Your task to perform on an android device: check storage Image 0: 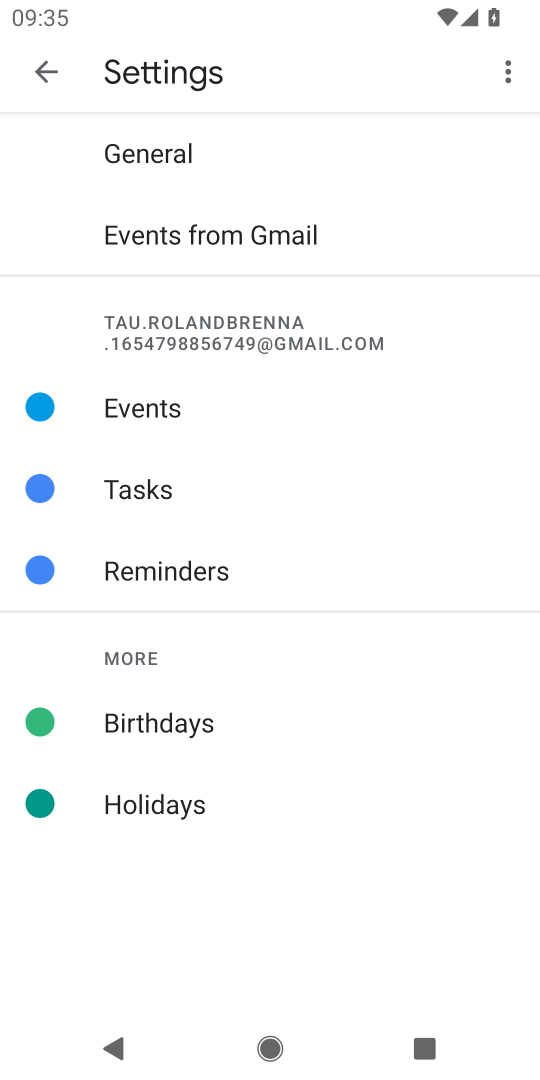
Step 0: press home button
Your task to perform on an android device: check storage Image 1: 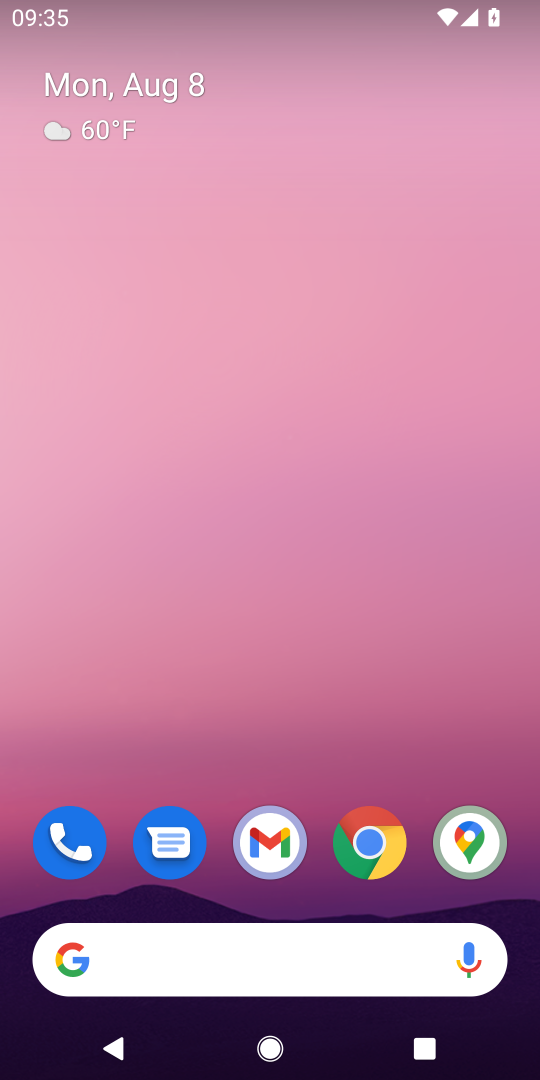
Step 1: drag from (220, 732) to (275, 7)
Your task to perform on an android device: check storage Image 2: 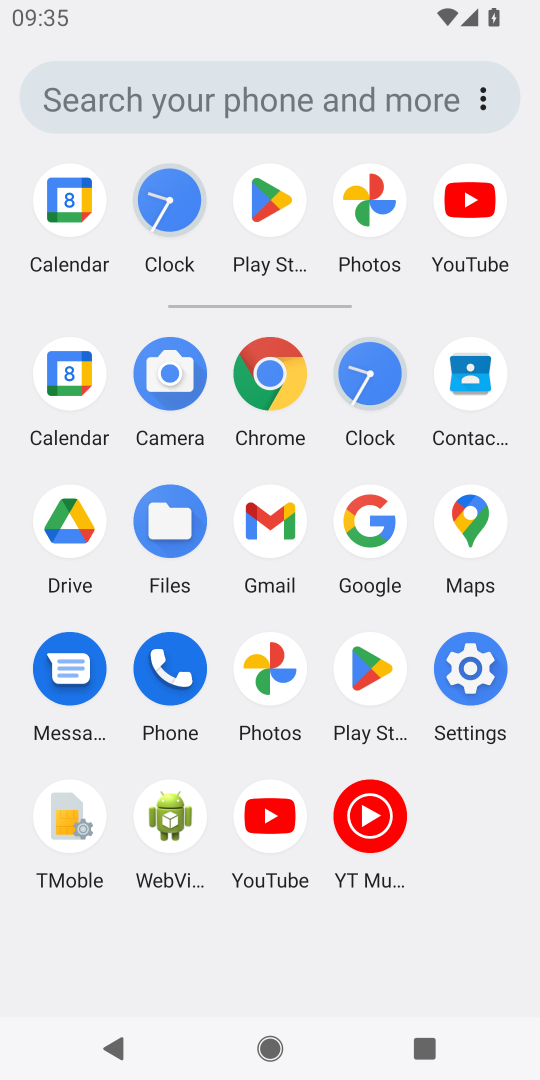
Step 2: click (472, 662)
Your task to perform on an android device: check storage Image 3: 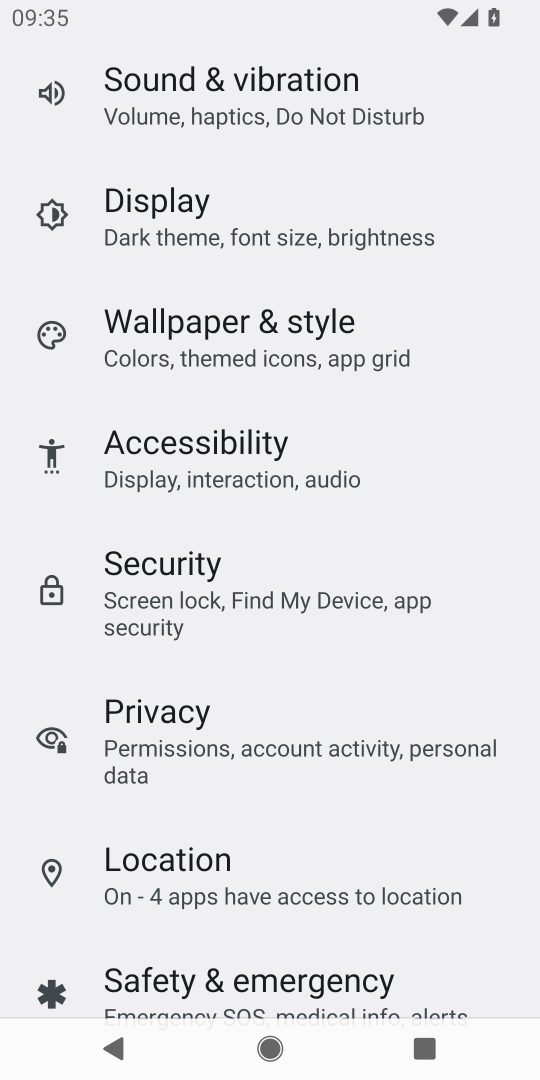
Step 3: drag from (232, 597) to (224, 268)
Your task to perform on an android device: check storage Image 4: 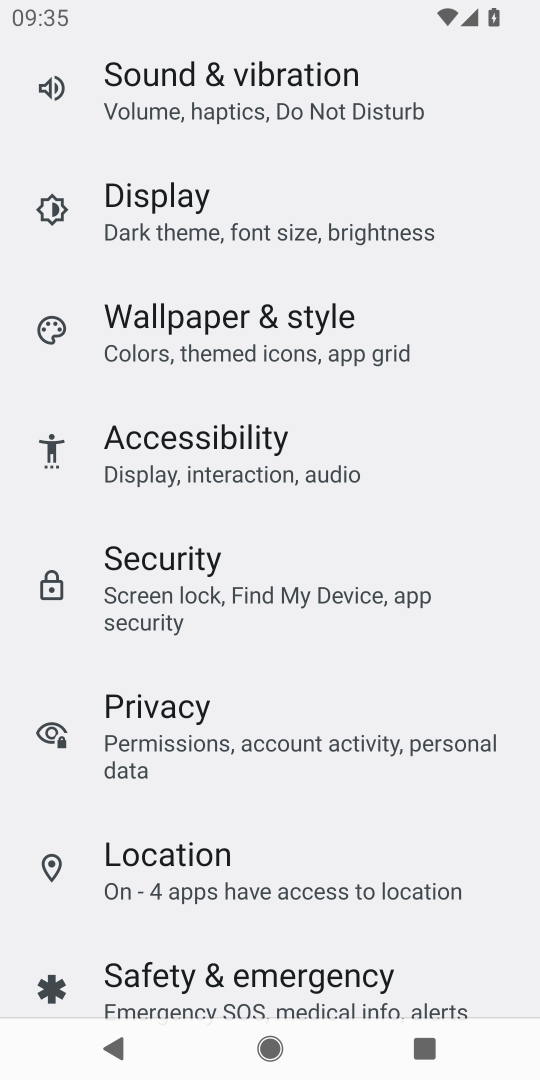
Step 4: drag from (239, 147) to (259, 947)
Your task to perform on an android device: check storage Image 5: 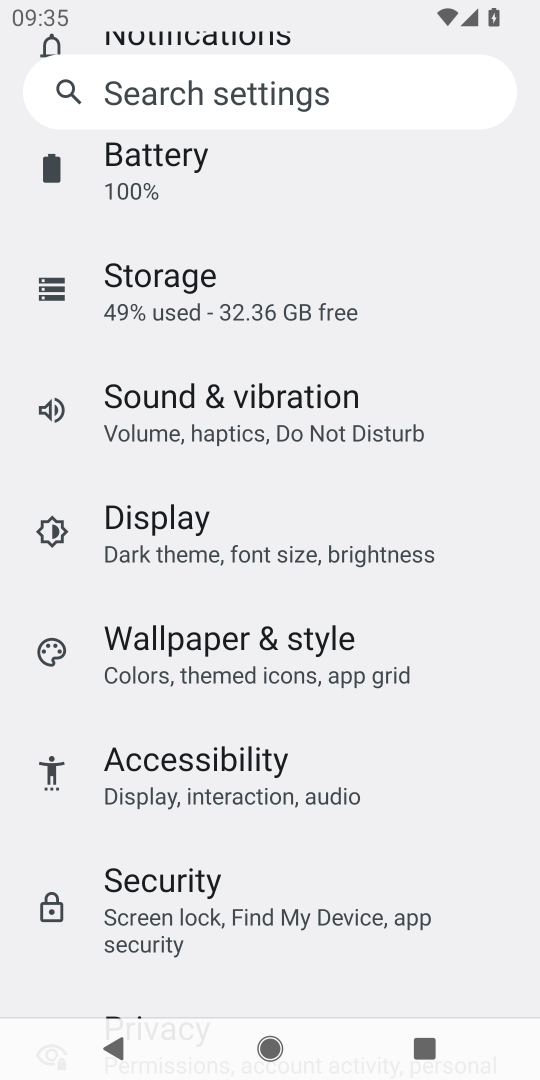
Step 5: click (211, 316)
Your task to perform on an android device: check storage Image 6: 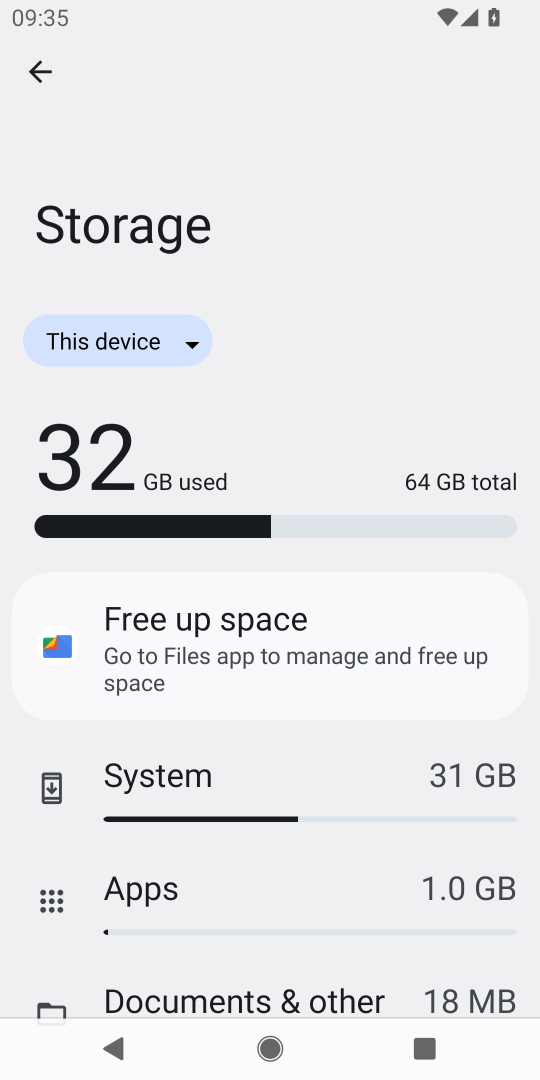
Step 6: task complete